Your task to perform on an android device: Check the news Image 0: 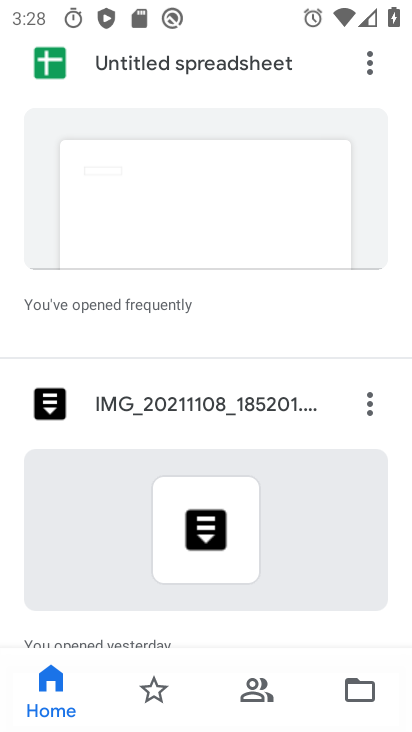
Step 0: press home button
Your task to perform on an android device: Check the news Image 1: 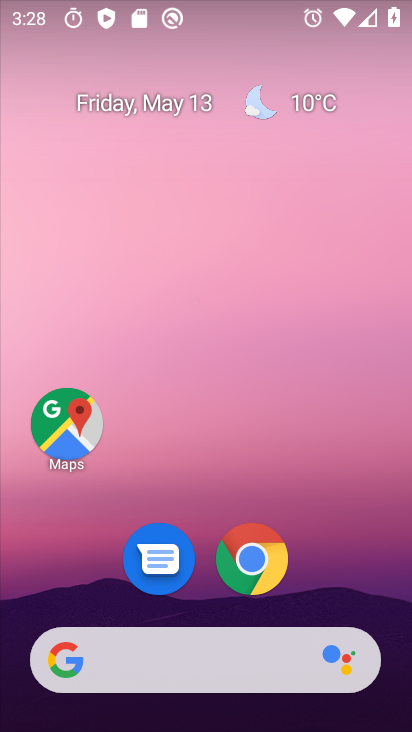
Step 1: drag from (218, 622) to (191, 258)
Your task to perform on an android device: Check the news Image 2: 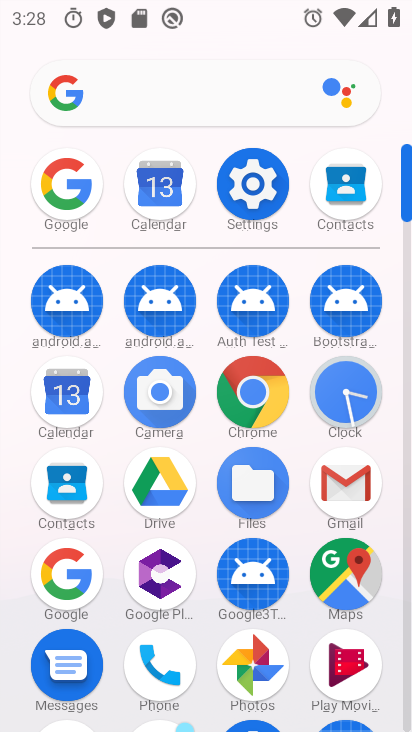
Step 2: click (89, 573)
Your task to perform on an android device: Check the news Image 3: 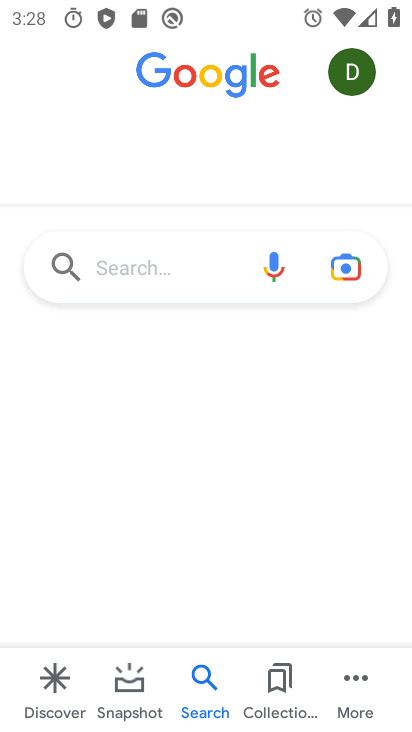
Step 3: click (156, 262)
Your task to perform on an android device: Check the news Image 4: 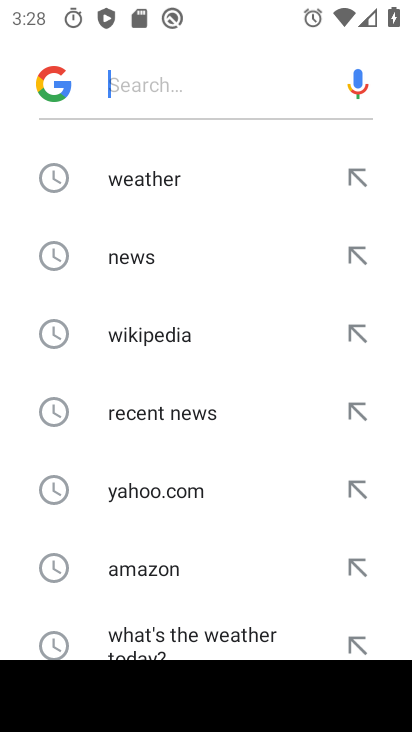
Step 4: click (156, 262)
Your task to perform on an android device: Check the news Image 5: 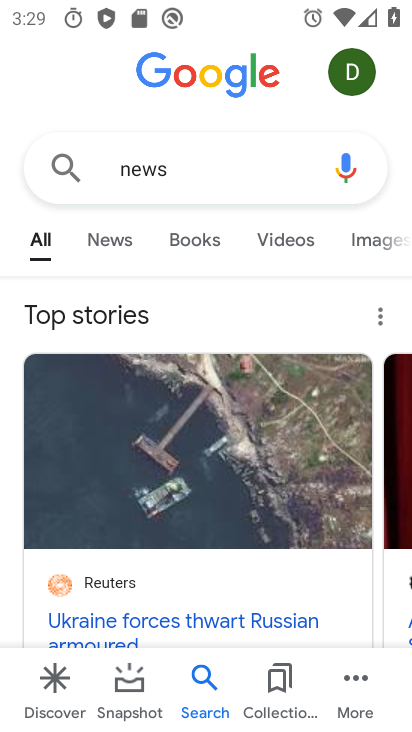
Step 5: click (199, 185)
Your task to perform on an android device: Check the news Image 6: 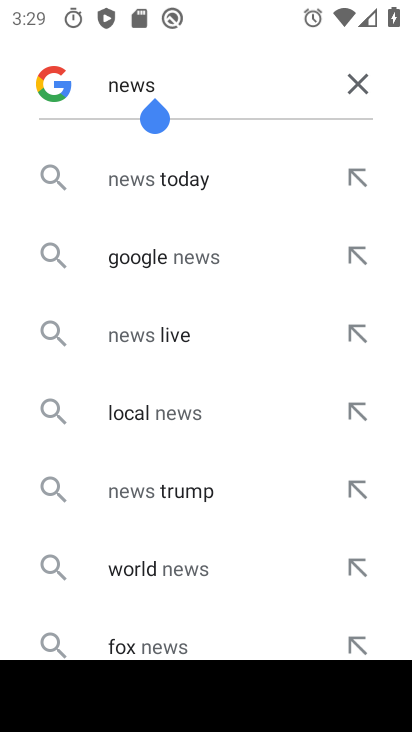
Step 6: click (103, 240)
Your task to perform on an android device: Check the news Image 7: 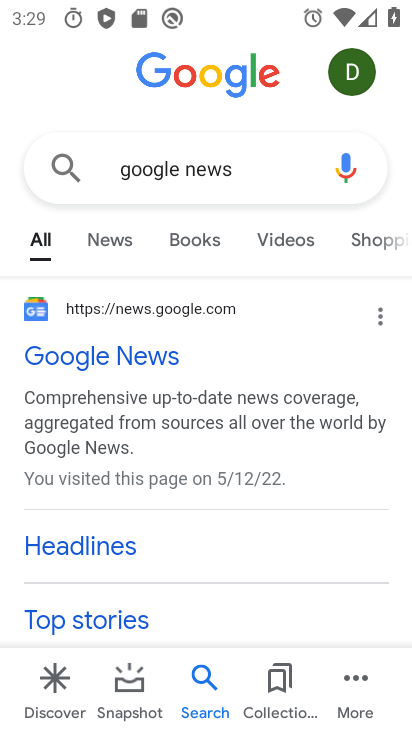
Step 7: click (129, 241)
Your task to perform on an android device: Check the news Image 8: 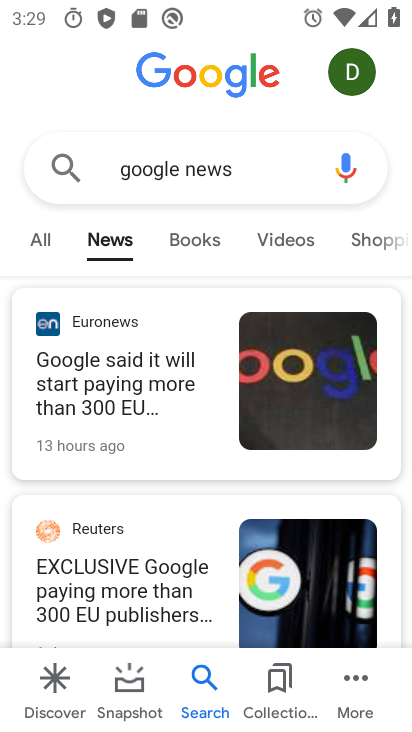
Step 8: task complete